Your task to perform on an android device: Open calendar and show me the second week of next month Image 0: 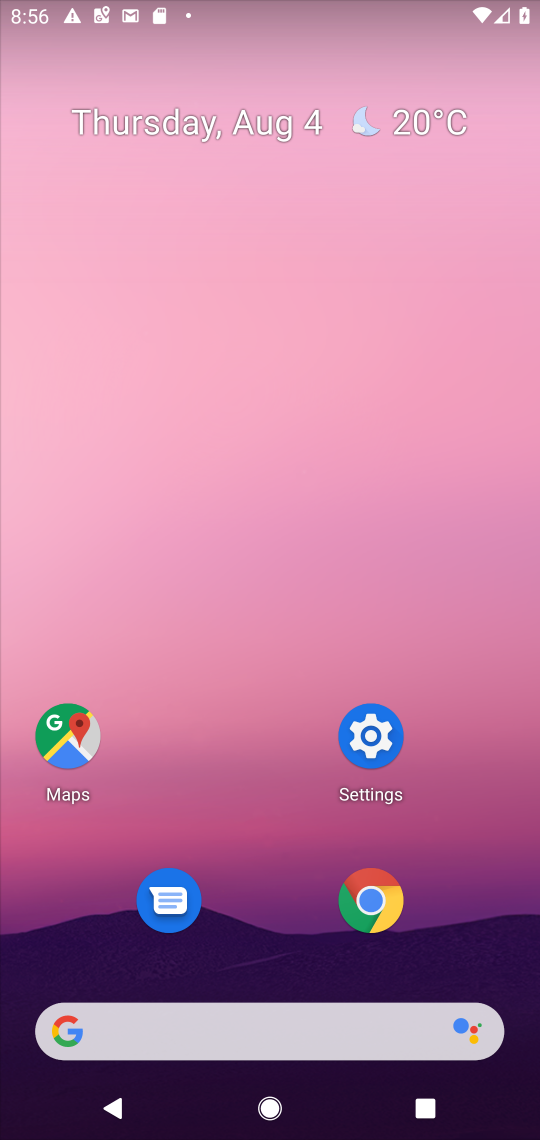
Step 0: press home button
Your task to perform on an android device: Open calendar and show me the second week of next month Image 1: 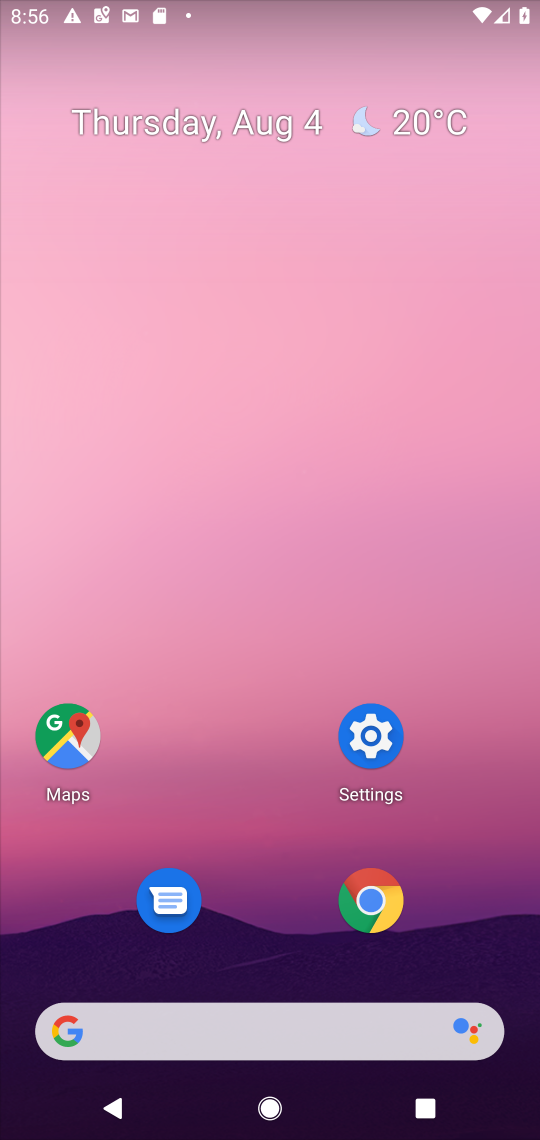
Step 1: drag from (266, 1009) to (395, 211)
Your task to perform on an android device: Open calendar and show me the second week of next month Image 2: 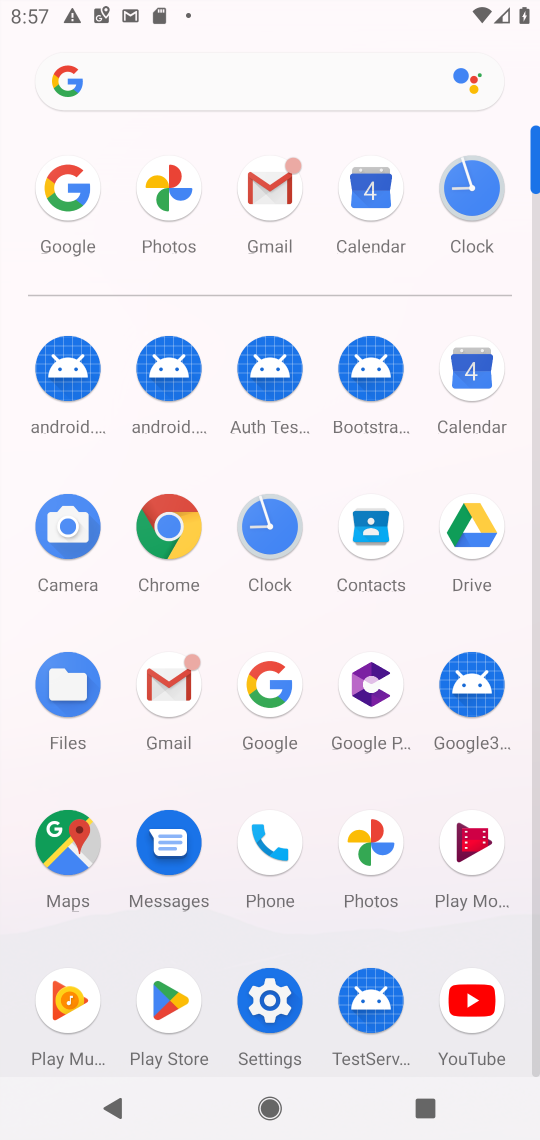
Step 2: click (467, 373)
Your task to perform on an android device: Open calendar and show me the second week of next month Image 3: 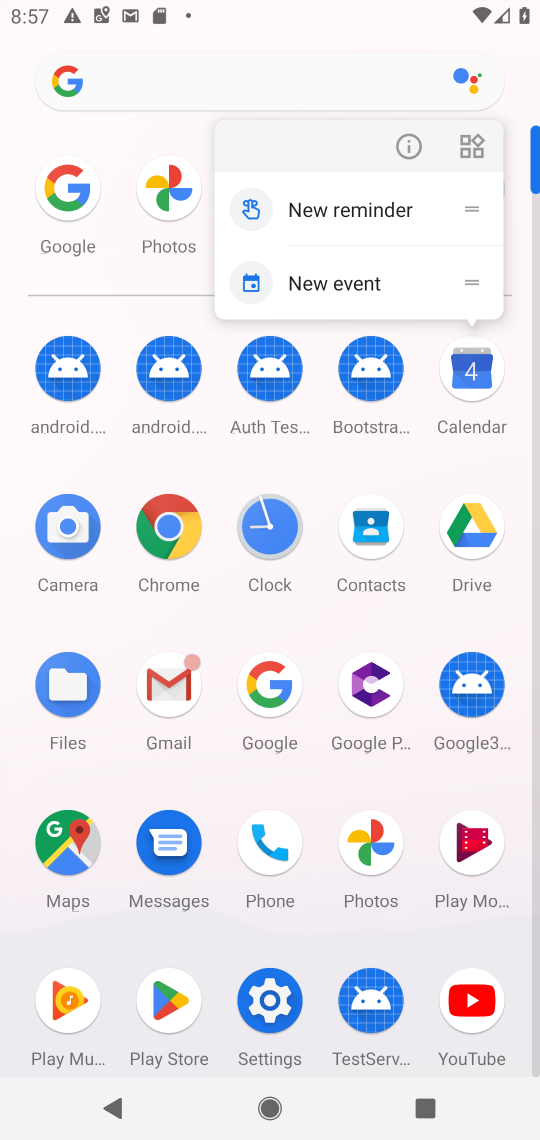
Step 3: click (467, 371)
Your task to perform on an android device: Open calendar and show me the second week of next month Image 4: 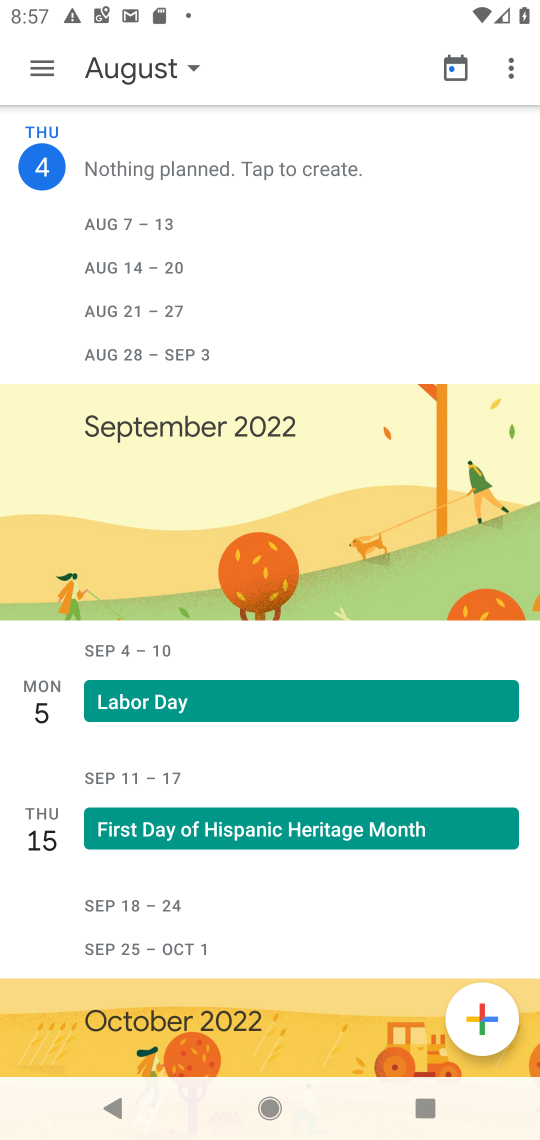
Step 4: click (147, 73)
Your task to perform on an android device: Open calendar and show me the second week of next month Image 5: 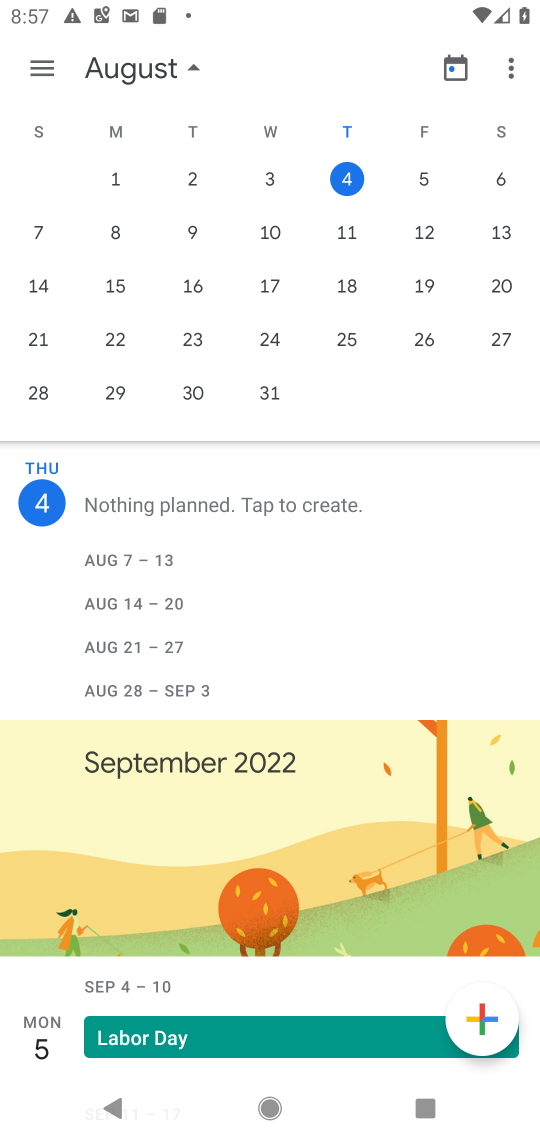
Step 5: drag from (436, 295) to (1, 318)
Your task to perform on an android device: Open calendar and show me the second week of next month Image 6: 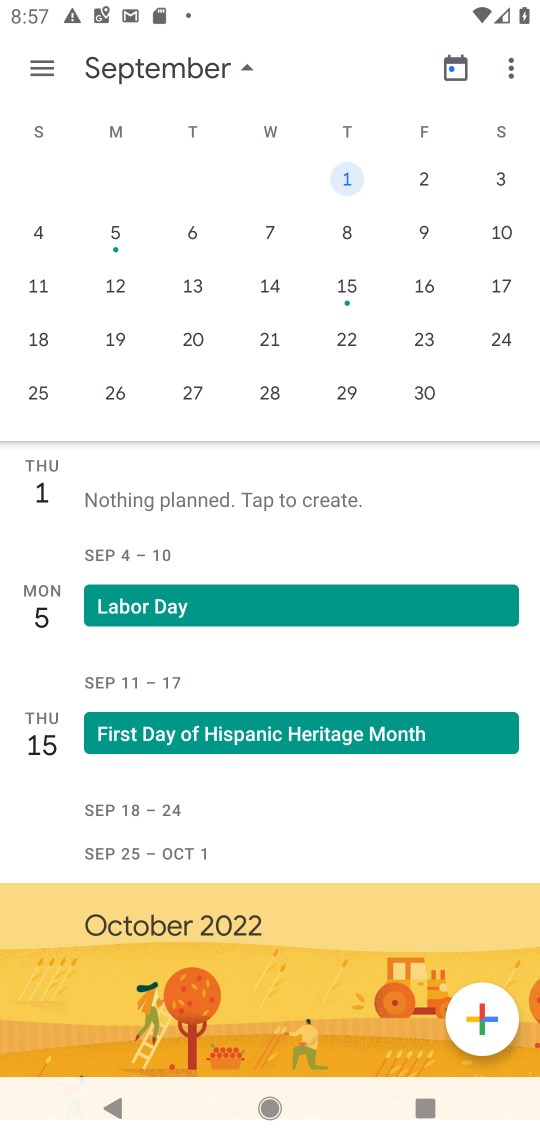
Step 6: click (36, 225)
Your task to perform on an android device: Open calendar and show me the second week of next month Image 7: 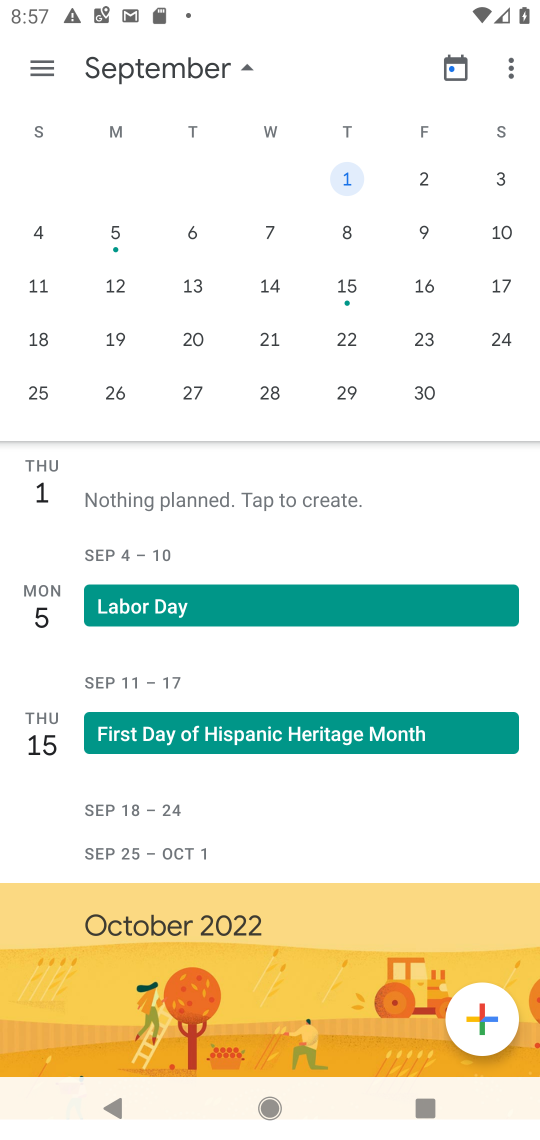
Step 7: click (40, 230)
Your task to perform on an android device: Open calendar and show me the second week of next month Image 8: 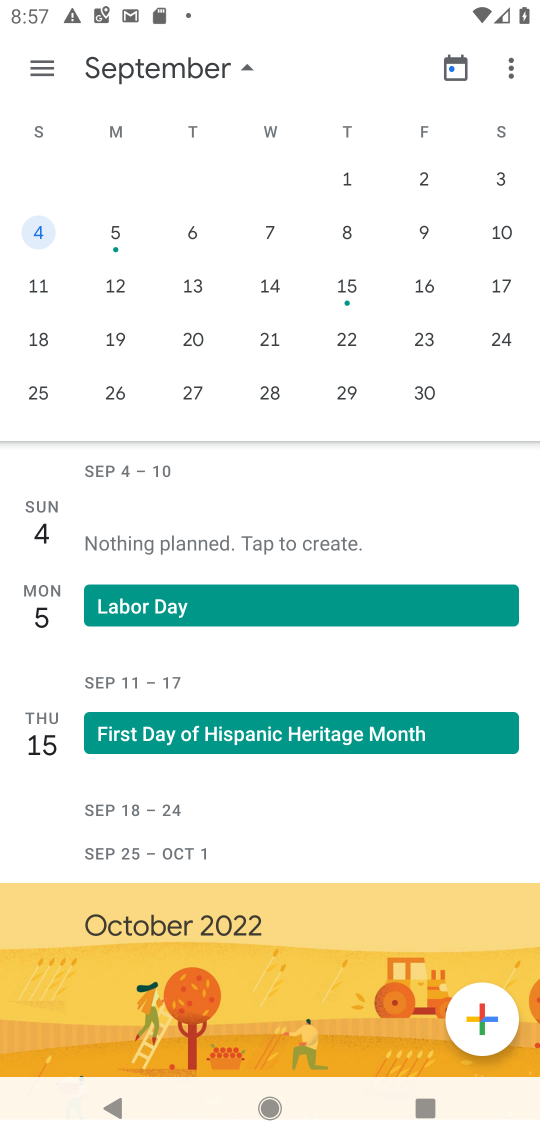
Step 8: click (47, 67)
Your task to perform on an android device: Open calendar and show me the second week of next month Image 9: 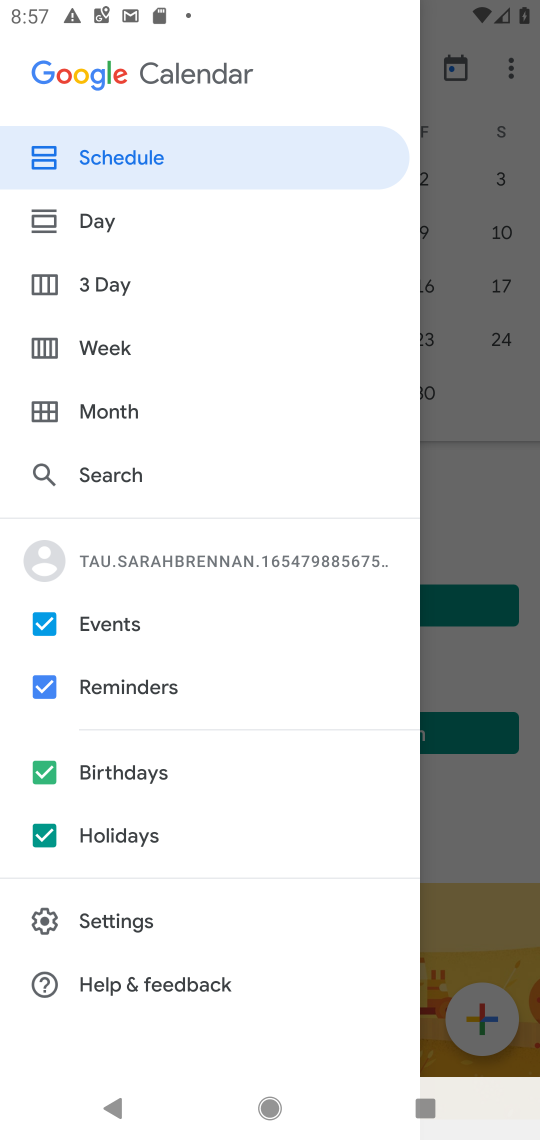
Step 9: click (108, 351)
Your task to perform on an android device: Open calendar and show me the second week of next month Image 10: 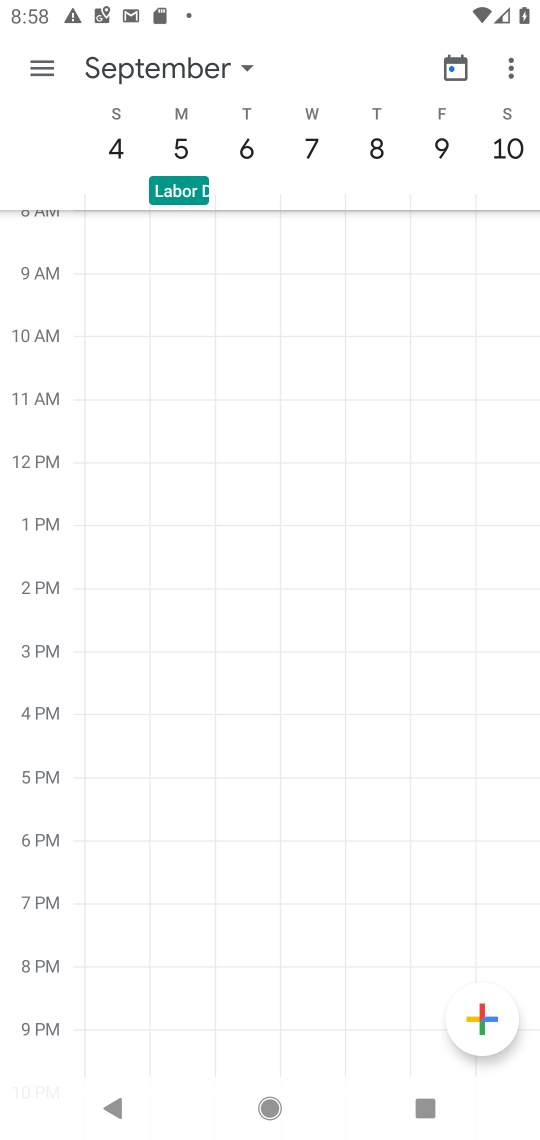
Step 10: task complete